Your task to perform on an android device: Open Youtube and go to the subscriptions tab Image 0: 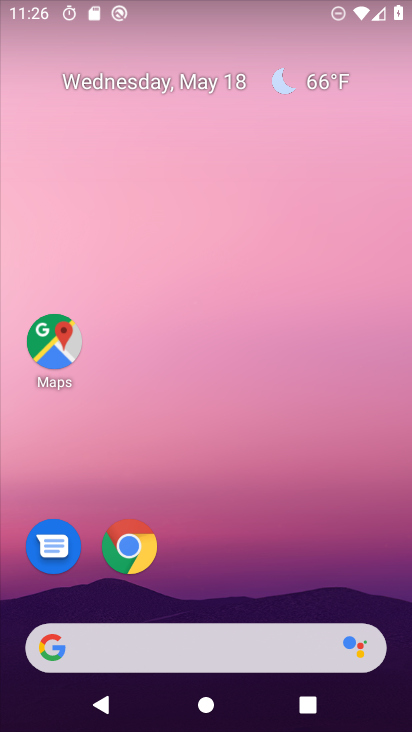
Step 0: drag from (194, 609) to (219, 16)
Your task to perform on an android device: Open Youtube and go to the subscriptions tab Image 1: 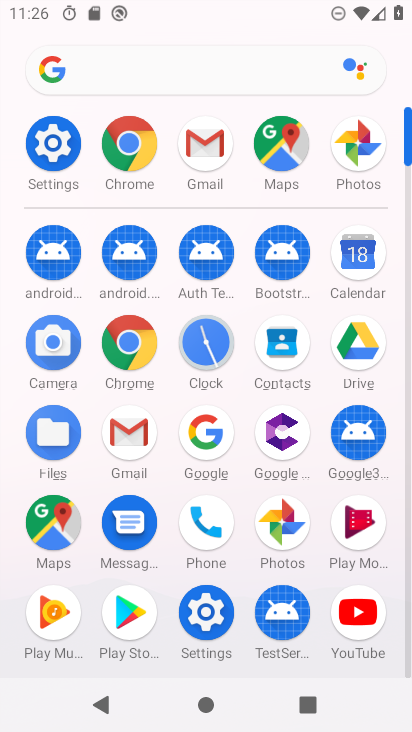
Step 1: click (365, 621)
Your task to perform on an android device: Open Youtube and go to the subscriptions tab Image 2: 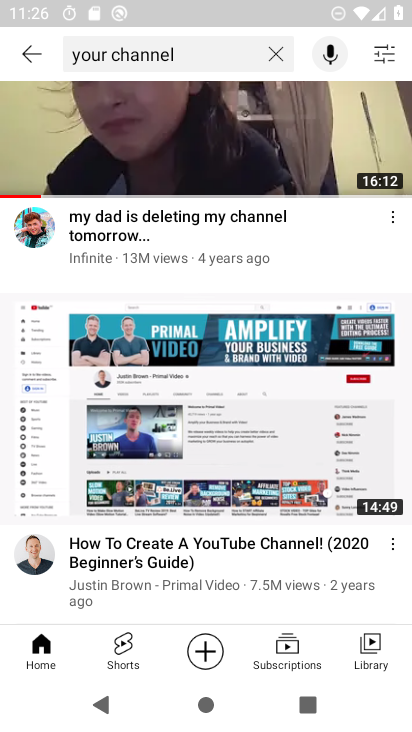
Step 2: click (287, 618)
Your task to perform on an android device: Open Youtube and go to the subscriptions tab Image 3: 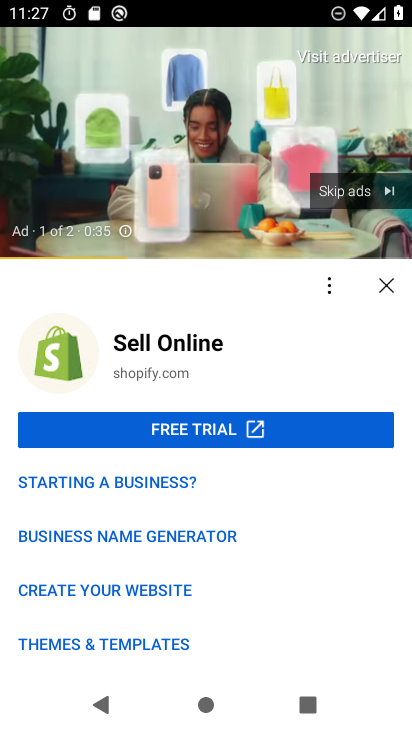
Step 3: press back button
Your task to perform on an android device: Open Youtube and go to the subscriptions tab Image 4: 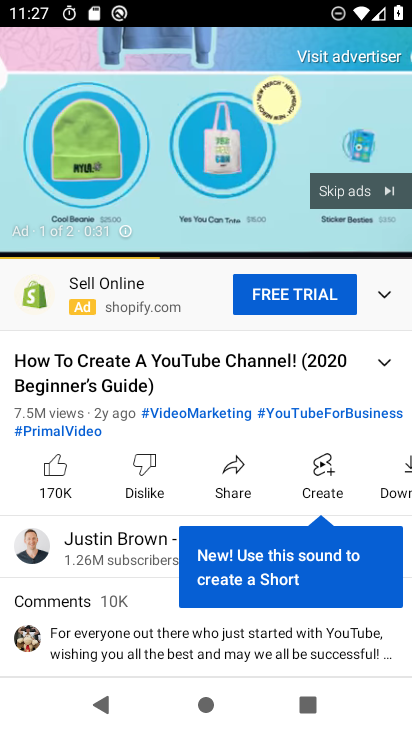
Step 4: press back button
Your task to perform on an android device: Open Youtube and go to the subscriptions tab Image 5: 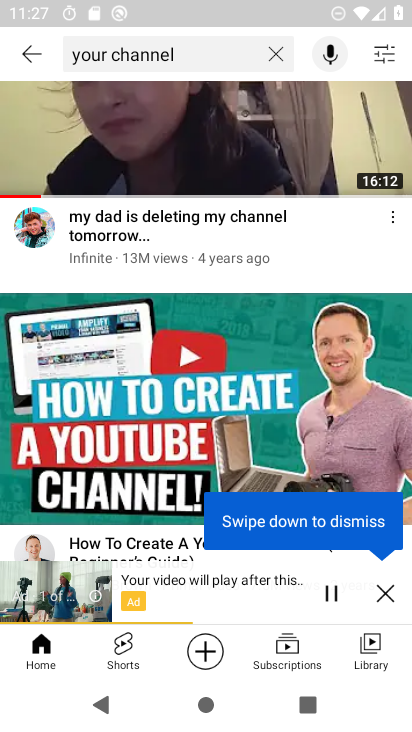
Step 5: click (289, 647)
Your task to perform on an android device: Open Youtube and go to the subscriptions tab Image 6: 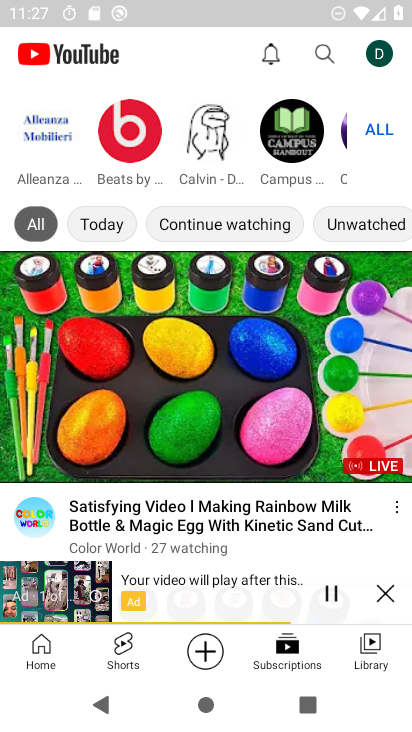
Step 6: task complete